Your task to perform on an android device: change the clock display to analog Image 0: 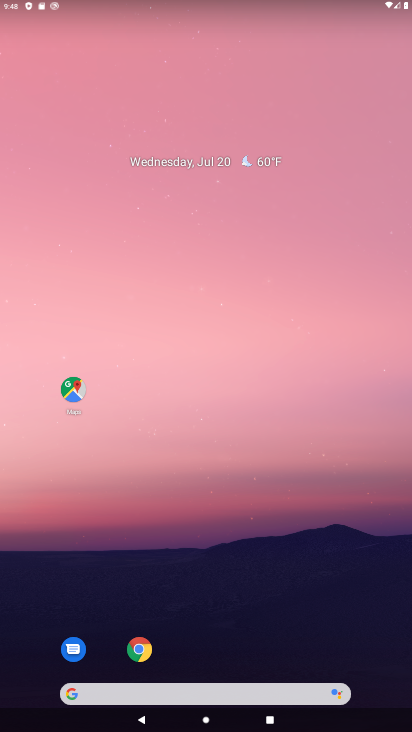
Step 0: drag from (265, 630) to (300, 116)
Your task to perform on an android device: change the clock display to analog Image 1: 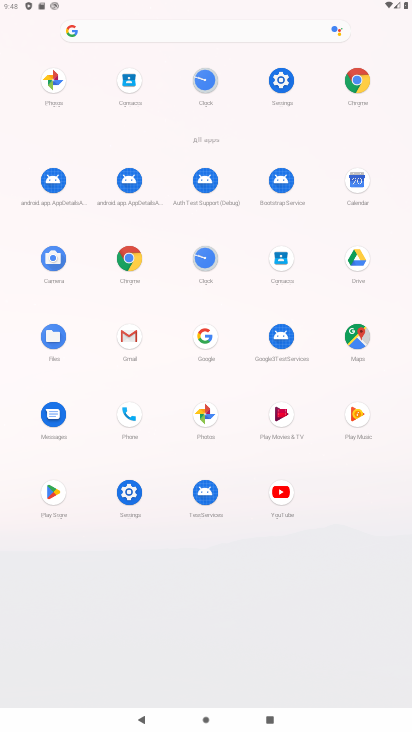
Step 1: click (211, 90)
Your task to perform on an android device: change the clock display to analog Image 2: 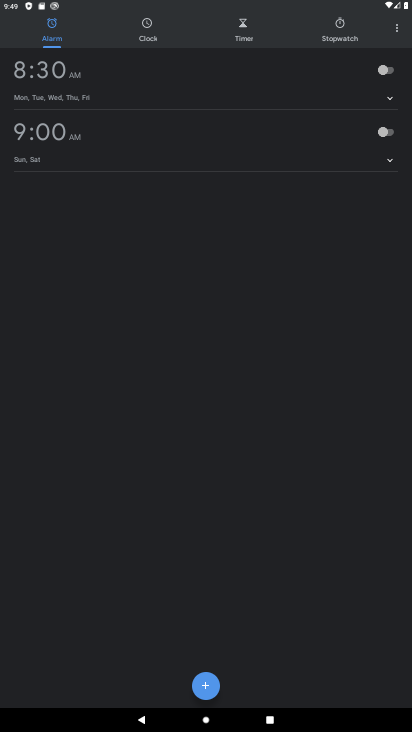
Step 2: click (396, 25)
Your task to perform on an android device: change the clock display to analog Image 3: 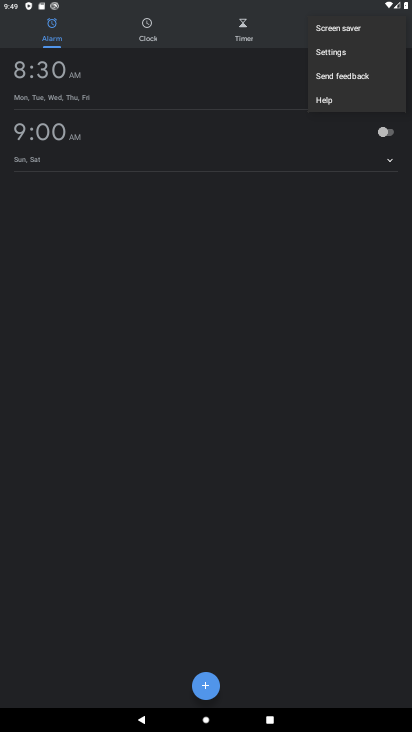
Step 3: click (330, 58)
Your task to perform on an android device: change the clock display to analog Image 4: 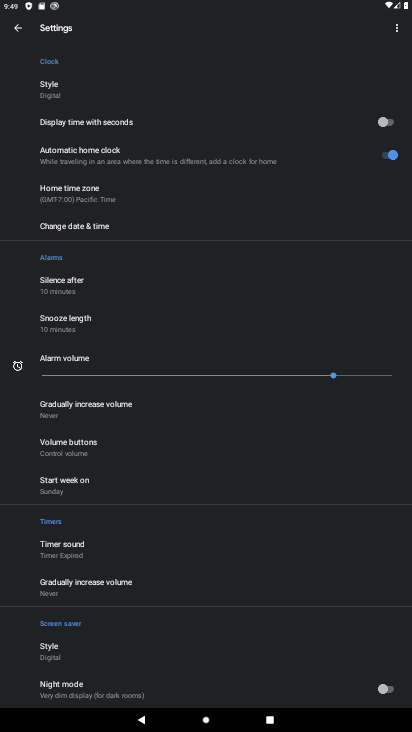
Step 4: click (69, 80)
Your task to perform on an android device: change the clock display to analog Image 5: 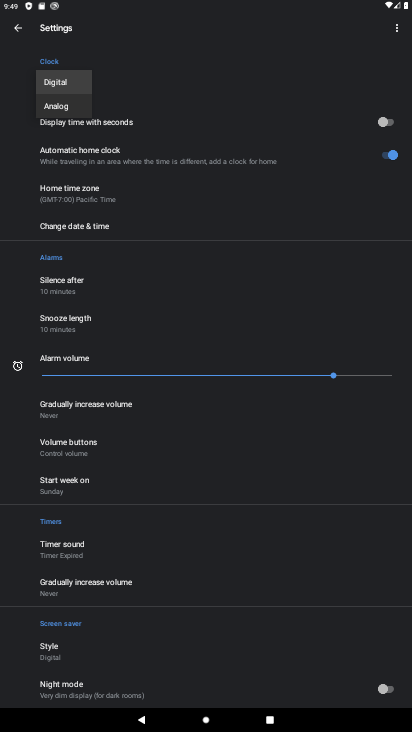
Step 5: click (68, 108)
Your task to perform on an android device: change the clock display to analog Image 6: 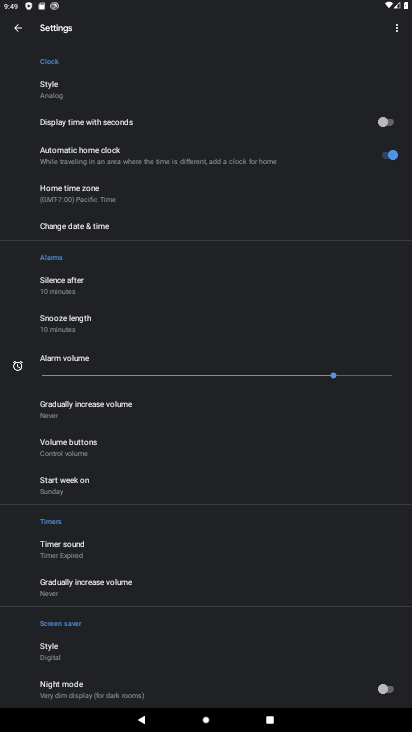
Step 6: task complete